Your task to perform on an android device: turn off location Image 0: 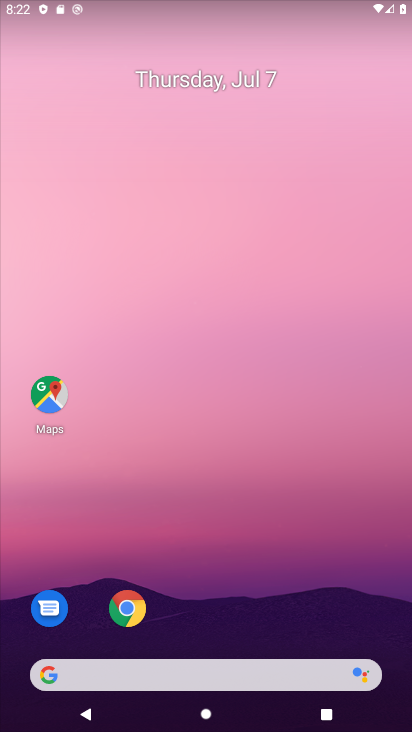
Step 0: drag from (170, 678) to (157, 71)
Your task to perform on an android device: turn off location Image 1: 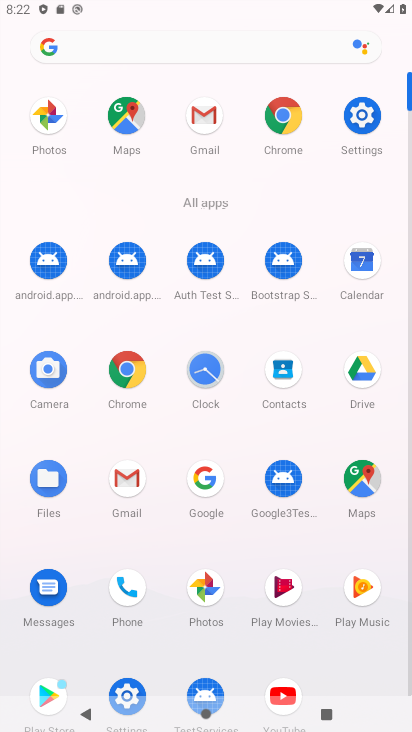
Step 1: click (364, 125)
Your task to perform on an android device: turn off location Image 2: 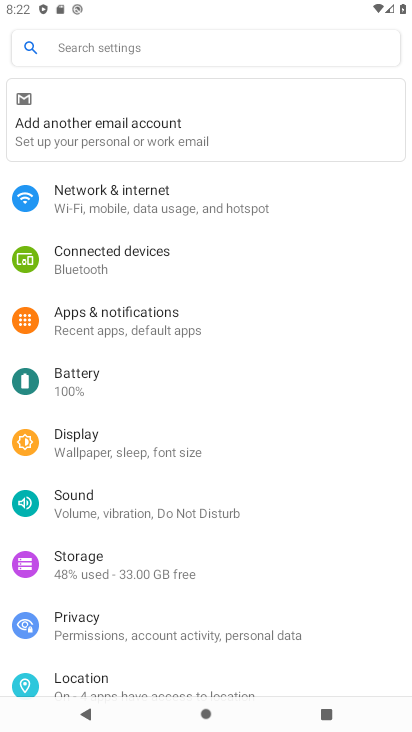
Step 2: drag from (118, 604) to (161, 317)
Your task to perform on an android device: turn off location Image 3: 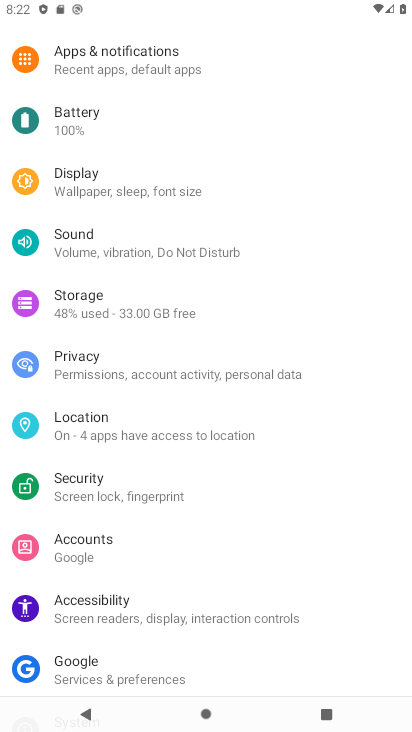
Step 3: click (107, 442)
Your task to perform on an android device: turn off location Image 4: 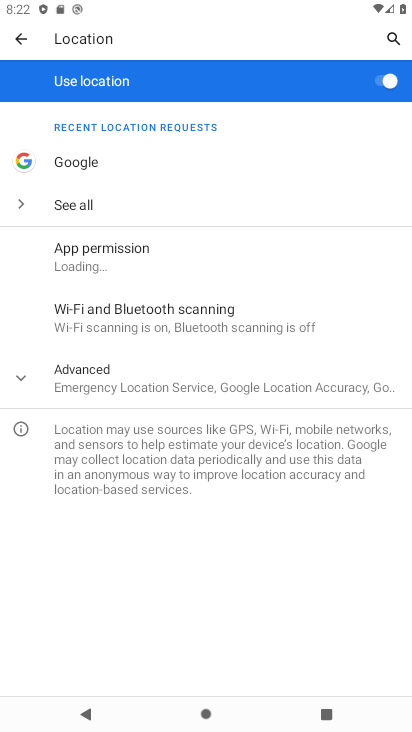
Step 4: click (394, 85)
Your task to perform on an android device: turn off location Image 5: 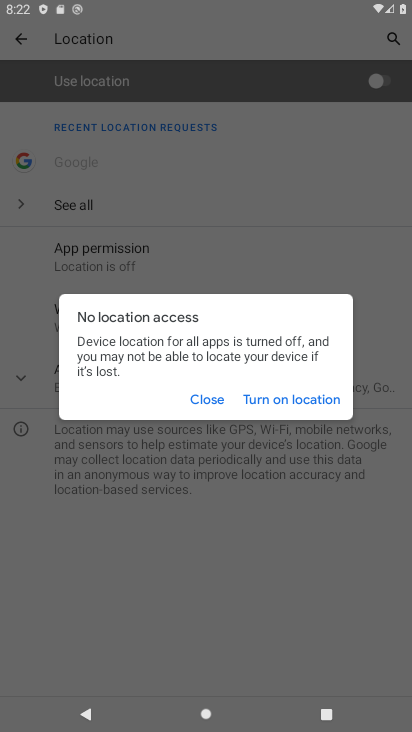
Step 5: task complete